Your task to perform on an android device: What is the news today? Image 0: 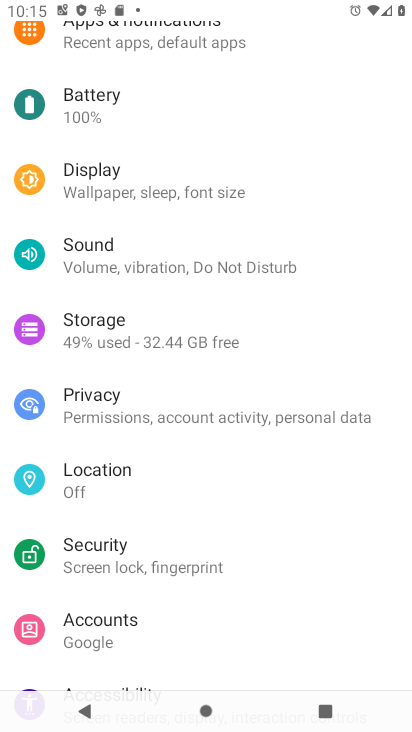
Step 0: press home button
Your task to perform on an android device: What is the news today? Image 1: 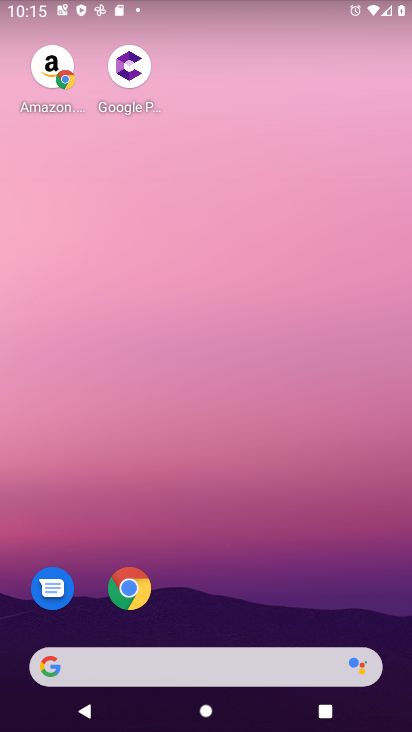
Step 1: drag from (346, 558) to (283, 15)
Your task to perform on an android device: What is the news today? Image 2: 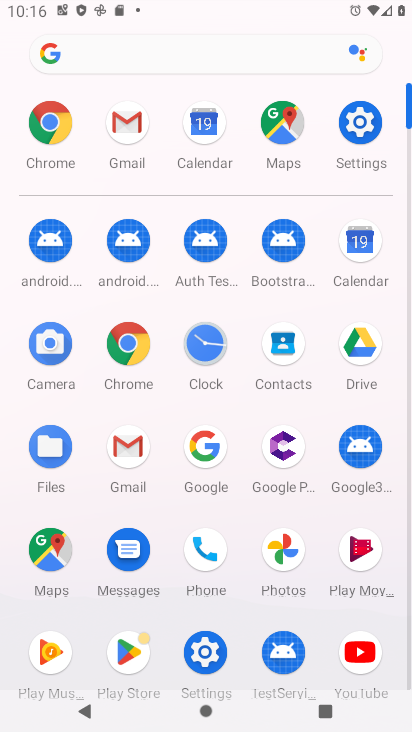
Step 2: click (138, 331)
Your task to perform on an android device: What is the news today? Image 3: 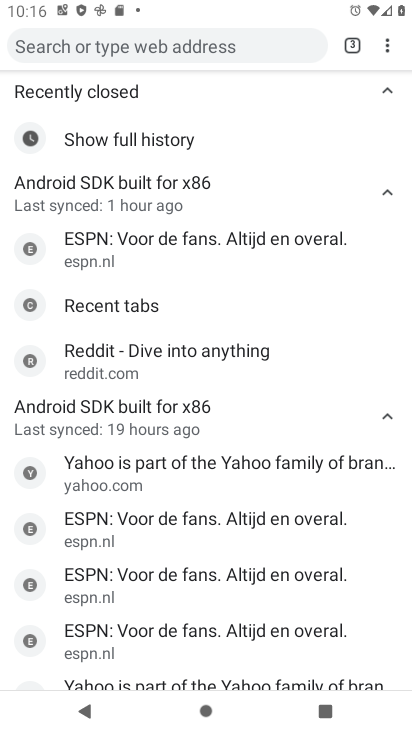
Step 3: task complete